Your task to perform on an android device: See recent photos Image 0: 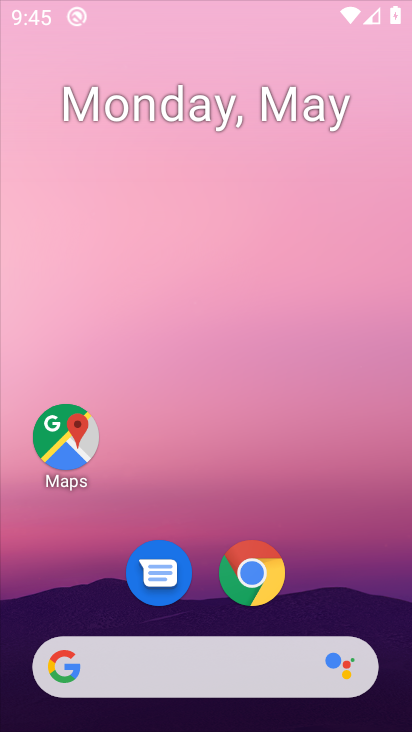
Step 0: drag from (219, 551) to (322, 21)
Your task to perform on an android device: See recent photos Image 1: 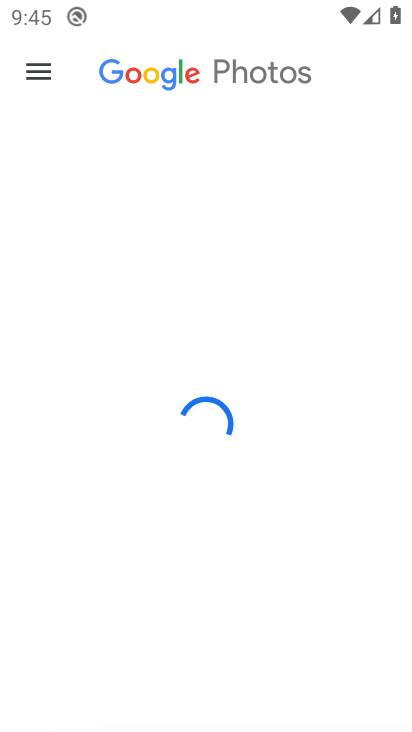
Step 1: press back button
Your task to perform on an android device: See recent photos Image 2: 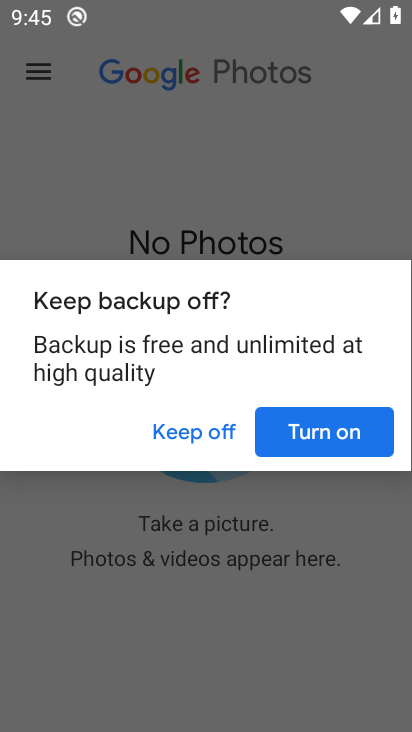
Step 2: press home button
Your task to perform on an android device: See recent photos Image 3: 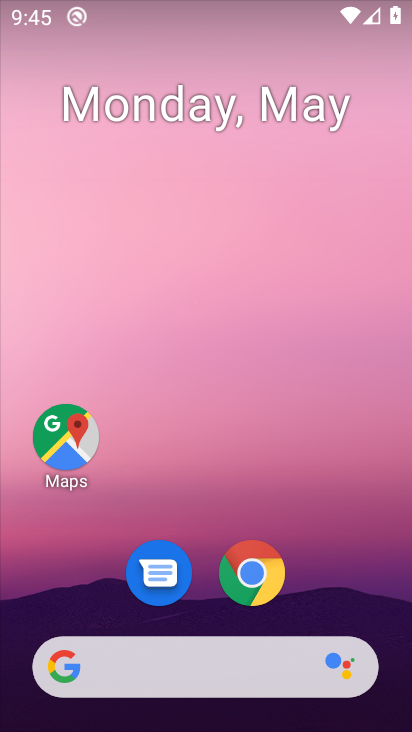
Step 3: drag from (238, 485) to (372, 4)
Your task to perform on an android device: See recent photos Image 4: 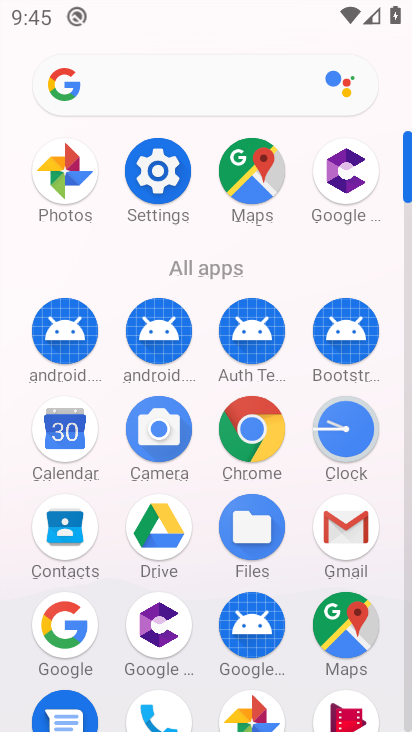
Step 4: drag from (242, 543) to (280, 169)
Your task to perform on an android device: See recent photos Image 5: 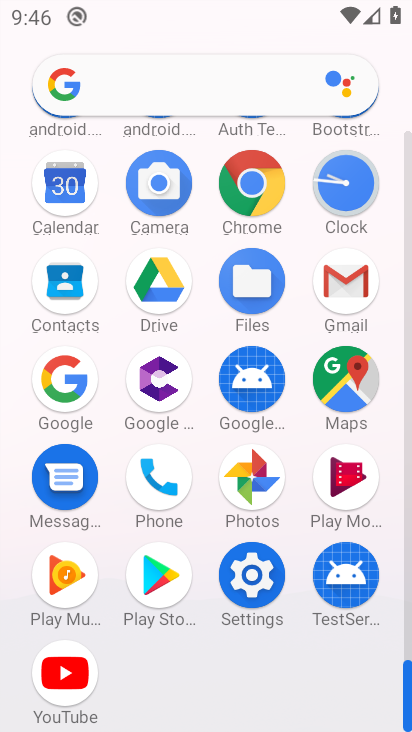
Step 5: click (246, 478)
Your task to perform on an android device: See recent photos Image 6: 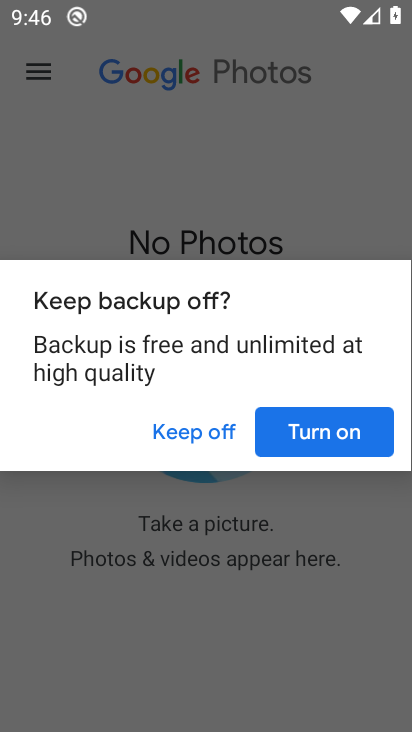
Step 6: click (195, 434)
Your task to perform on an android device: See recent photos Image 7: 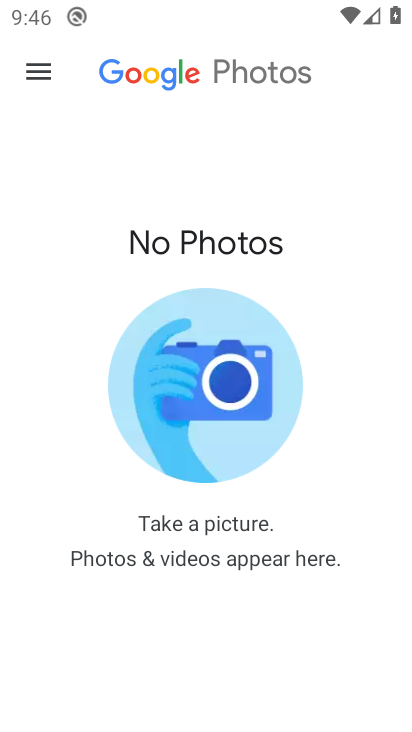
Step 7: click (37, 73)
Your task to perform on an android device: See recent photos Image 8: 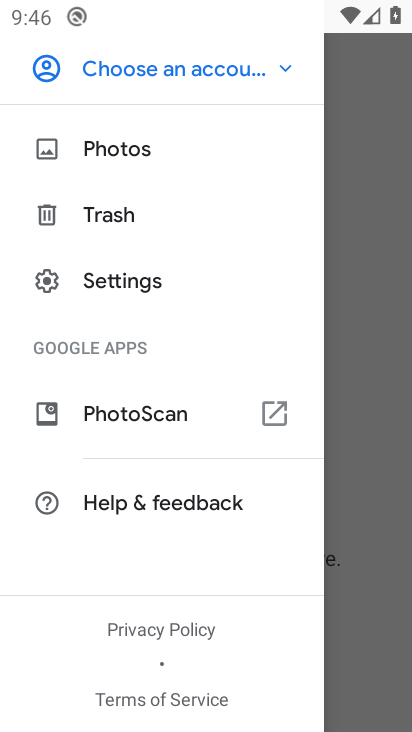
Step 8: click (127, 132)
Your task to perform on an android device: See recent photos Image 9: 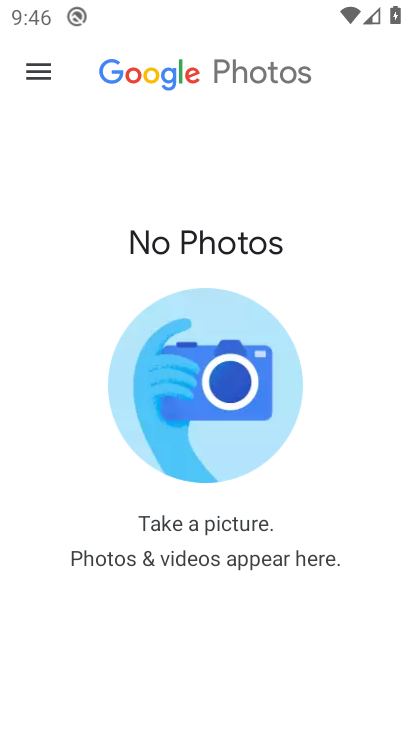
Step 9: task complete